Your task to perform on an android device: create a new album in the google photos Image 0: 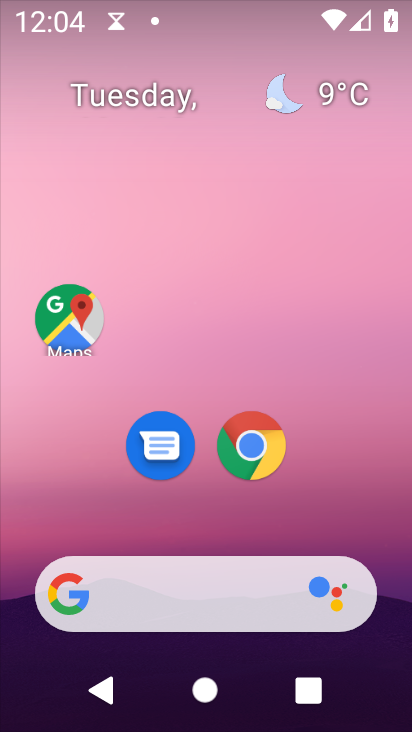
Step 0: drag from (305, 571) to (280, 38)
Your task to perform on an android device: create a new album in the google photos Image 1: 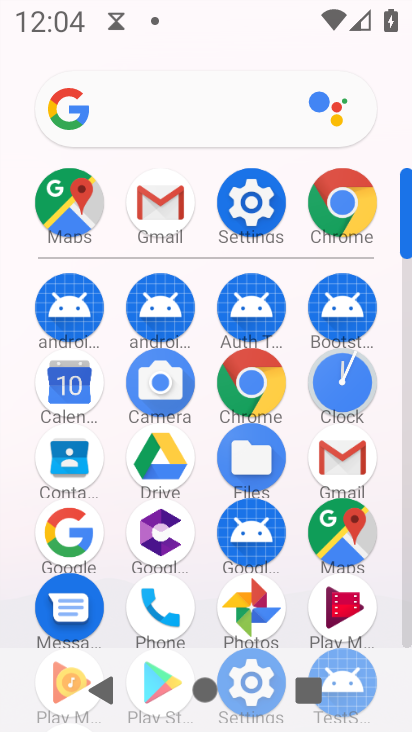
Step 1: click (250, 606)
Your task to perform on an android device: create a new album in the google photos Image 2: 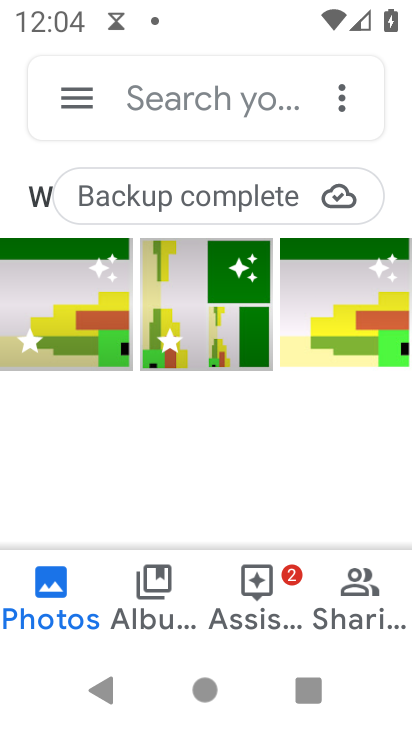
Step 2: click (165, 598)
Your task to perform on an android device: create a new album in the google photos Image 3: 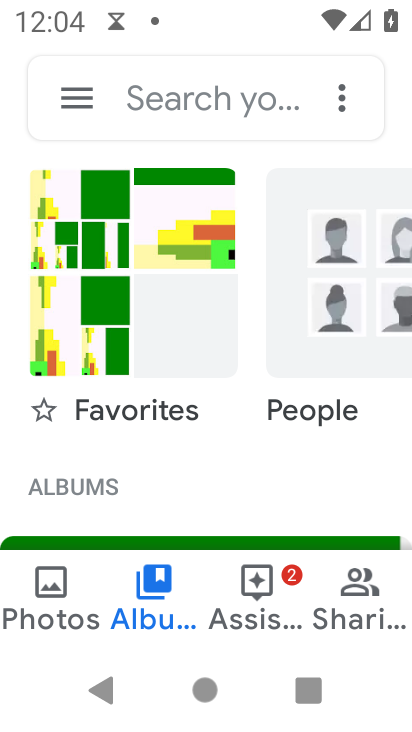
Step 3: drag from (232, 506) to (221, 139)
Your task to perform on an android device: create a new album in the google photos Image 4: 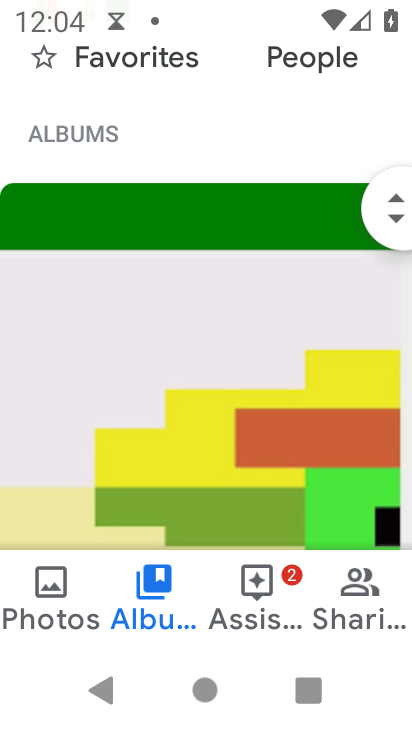
Step 4: drag from (347, 467) to (315, 86)
Your task to perform on an android device: create a new album in the google photos Image 5: 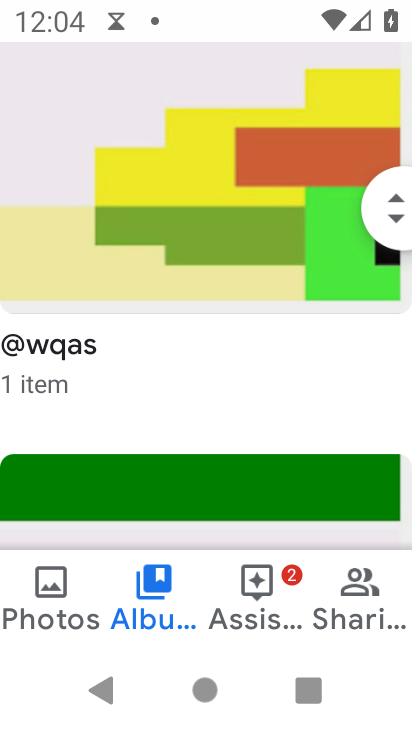
Step 5: drag from (314, 461) to (286, 88)
Your task to perform on an android device: create a new album in the google photos Image 6: 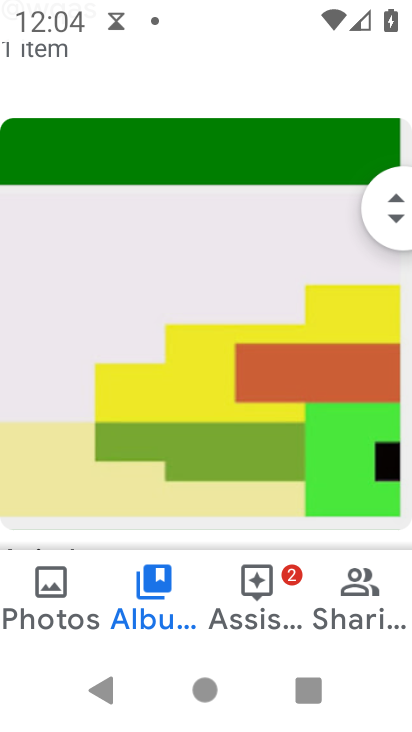
Step 6: drag from (320, 480) to (324, 42)
Your task to perform on an android device: create a new album in the google photos Image 7: 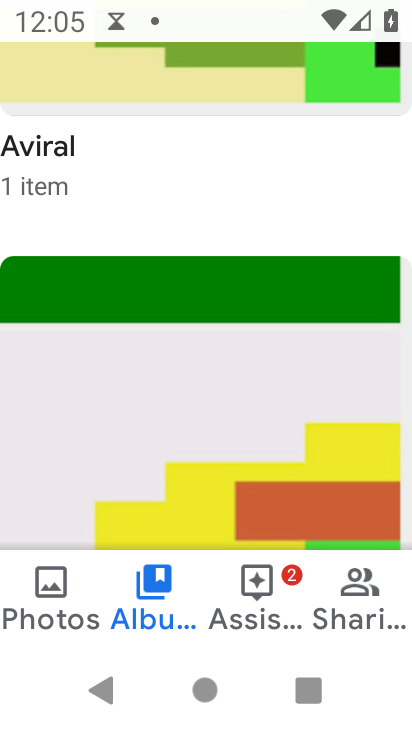
Step 7: click (74, 609)
Your task to perform on an android device: create a new album in the google photos Image 8: 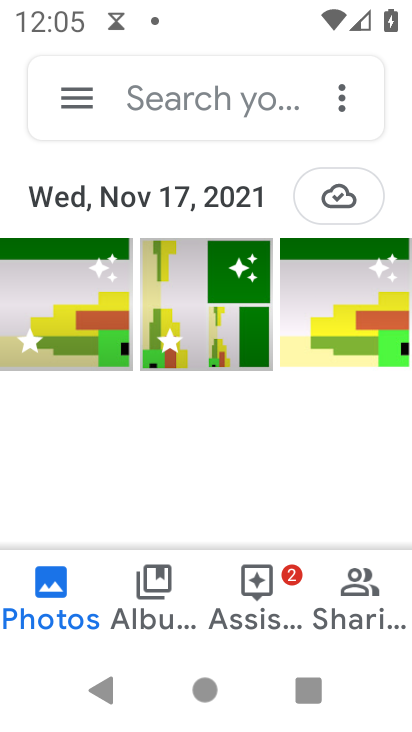
Step 8: click (250, 594)
Your task to perform on an android device: create a new album in the google photos Image 9: 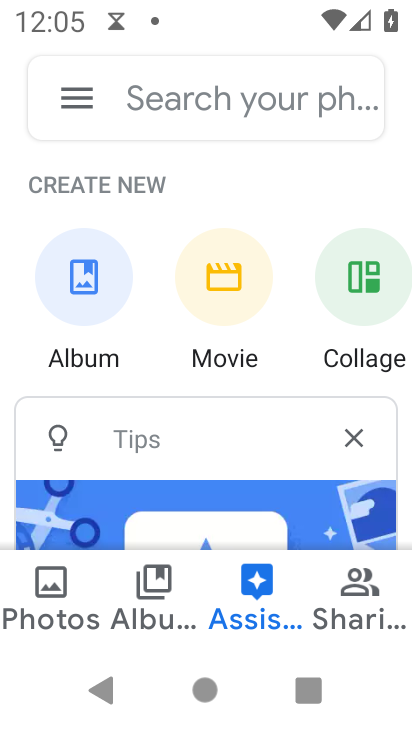
Step 9: click (173, 601)
Your task to perform on an android device: create a new album in the google photos Image 10: 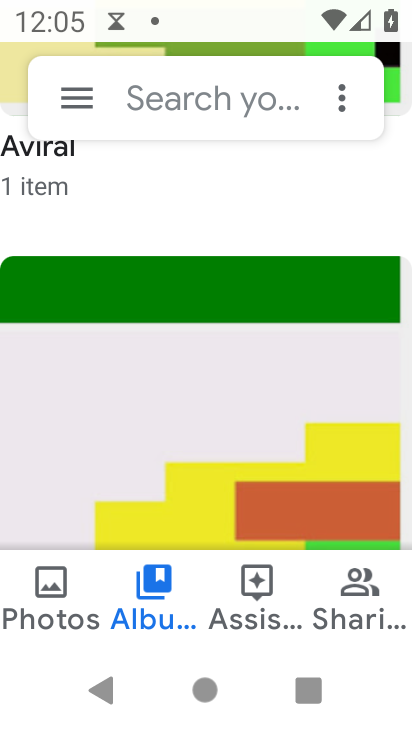
Step 10: drag from (203, 468) to (154, 105)
Your task to perform on an android device: create a new album in the google photos Image 11: 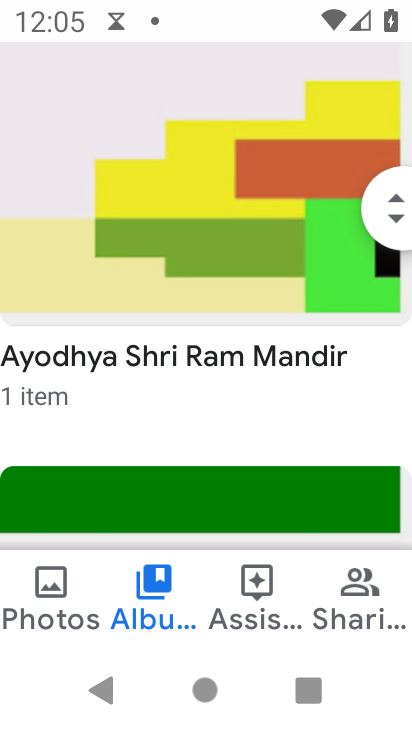
Step 11: drag from (217, 125) to (242, 543)
Your task to perform on an android device: create a new album in the google photos Image 12: 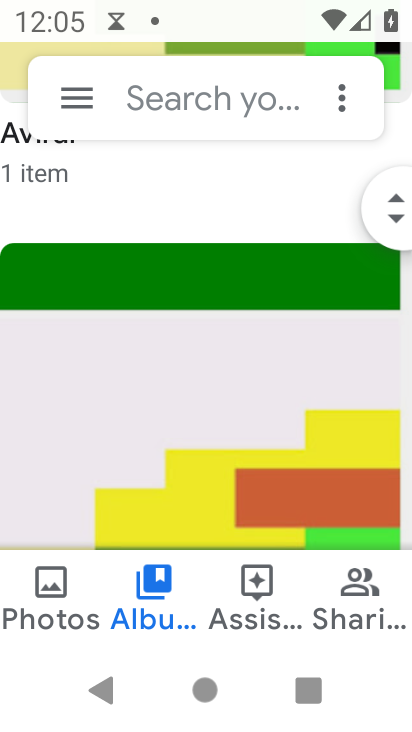
Step 12: drag from (307, 263) to (307, 520)
Your task to perform on an android device: create a new album in the google photos Image 13: 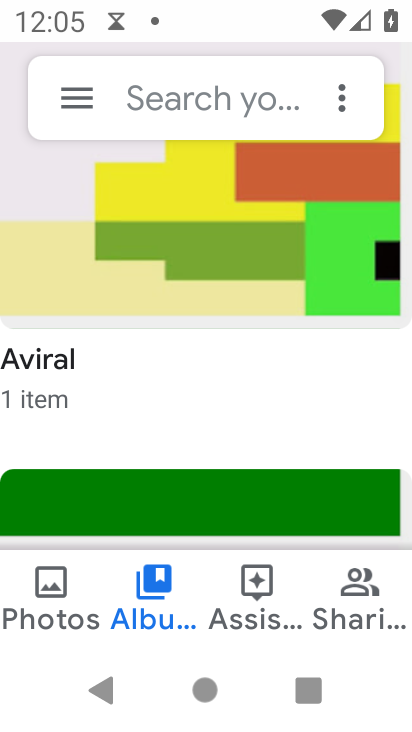
Step 13: drag from (179, 250) to (130, 723)
Your task to perform on an android device: create a new album in the google photos Image 14: 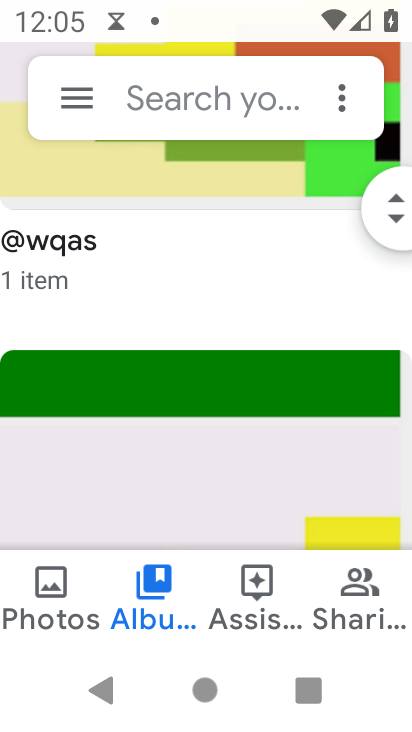
Step 14: drag from (106, 254) to (117, 627)
Your task to perform on an android device: create a new album in the google photos Image 15: 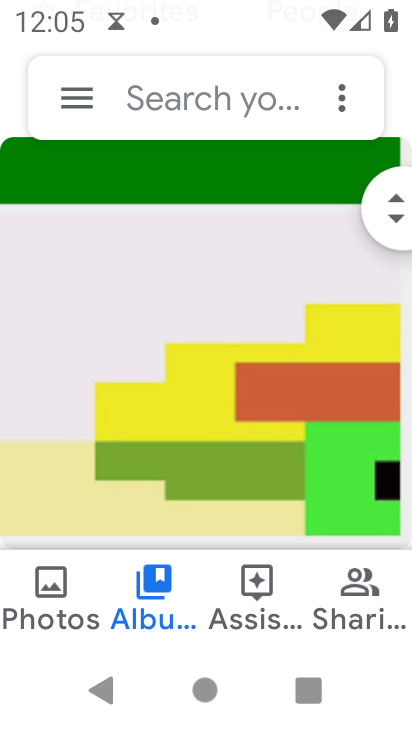
Step 15: drag from (199, 166) to (205, 570)
Your task to perform on an android device: create a new album in the google photos Image 16: 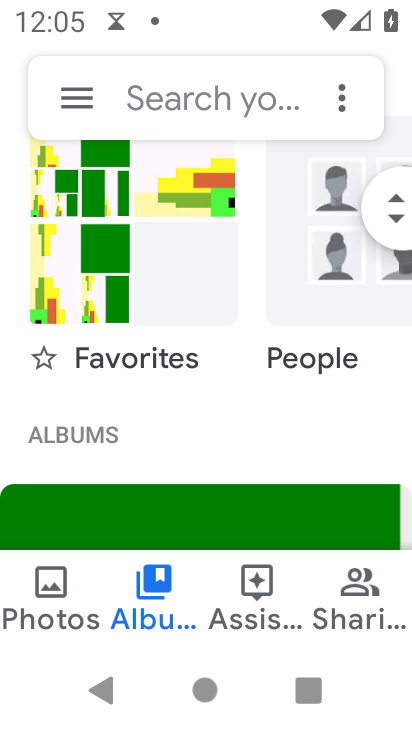
Step 16: drag from (264, 347) to (262, 522)
Your task to perform on an android device: create a new album in the google photos Image 17: 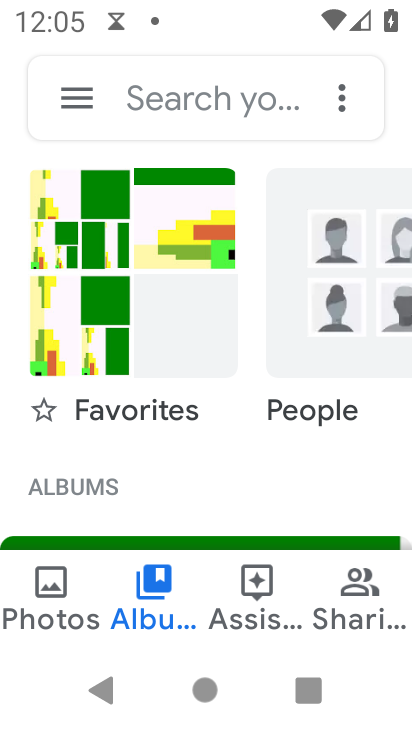
Step 17: click (332, 108)
Your task to perform on an android device: create a new album in the google photos Image 18: 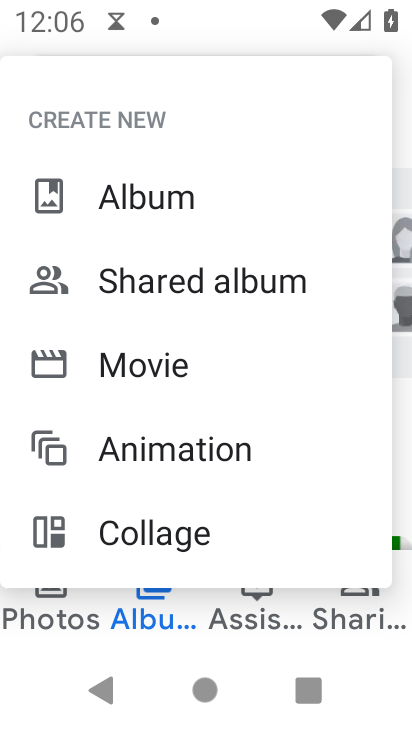
Step 18: click (191, 213)
Your task to perform on an android device: create a new album in the google photos Image 19: 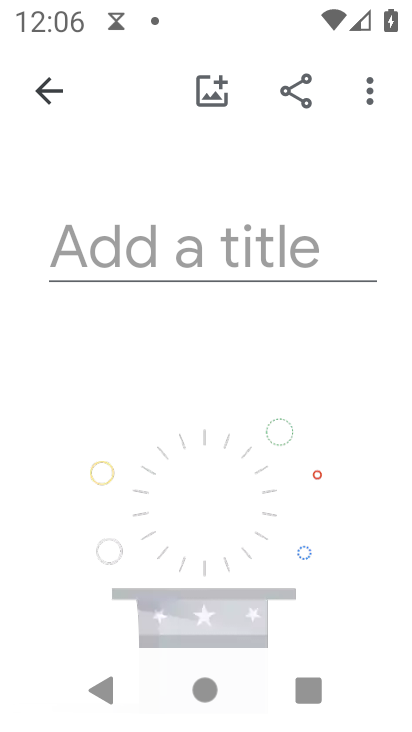
Step 19: click (177, 238)
Your task to perform on an android device: create a new album in the google photos Image 20: 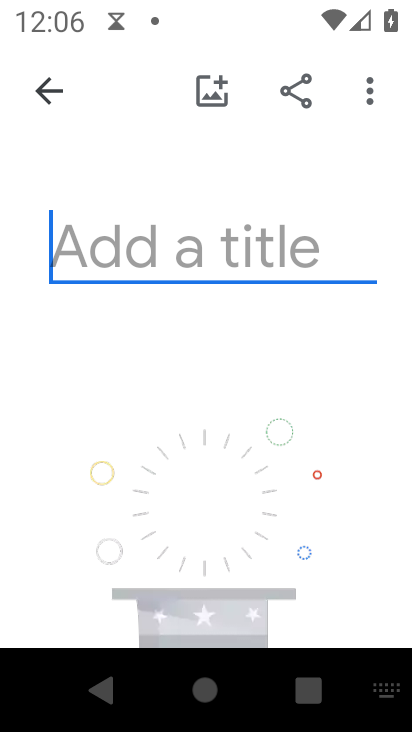
Step 20: type "vhhhjhjj"
Your task to perform on an android device: create a new album in the google photos Image 21: 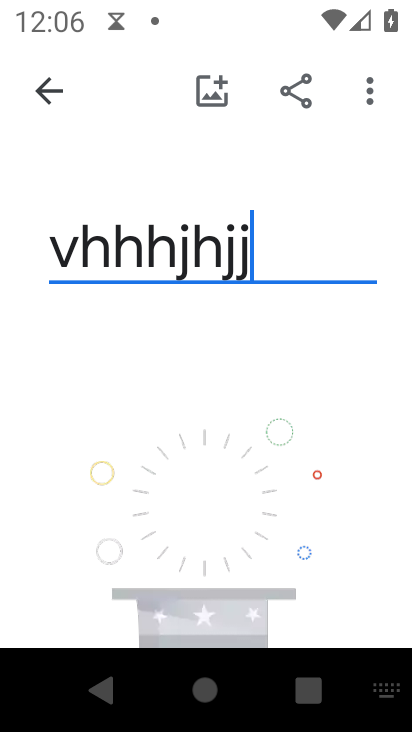
Step 21: click (268, 520)
Your task to perform on an android device: create a new album in the google photos Image 22: 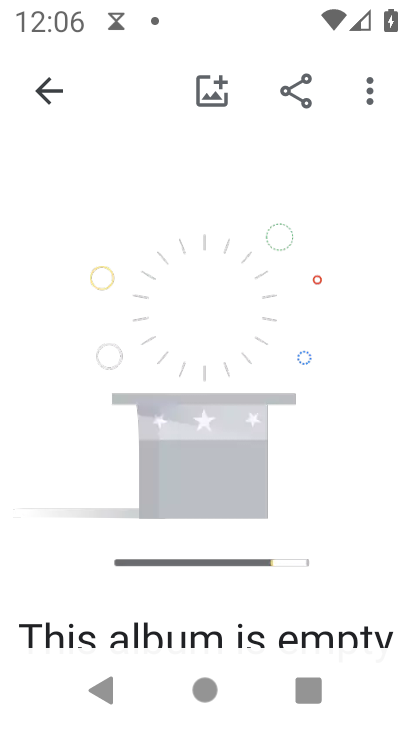
Step 22: task complete